Your task to perform on an android device: turn on javascript in the chrome app Image 0: 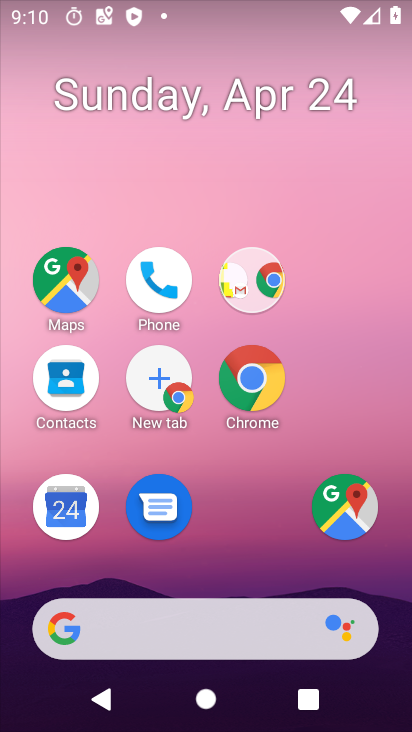
Step 0: drag from (226, 502) to (128, 45)
Your task to perform on an android device: turn on javascript in the chrome app Image 1: 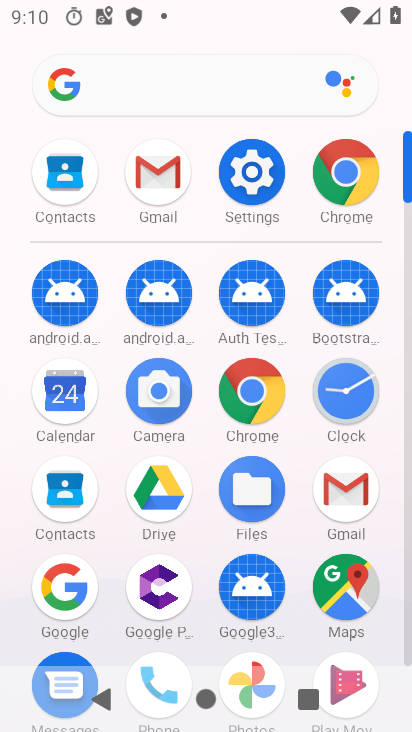
Step 1: click (339, 182)
Your task to perform on an android device: turn on javascript in the chrome app Image 2: 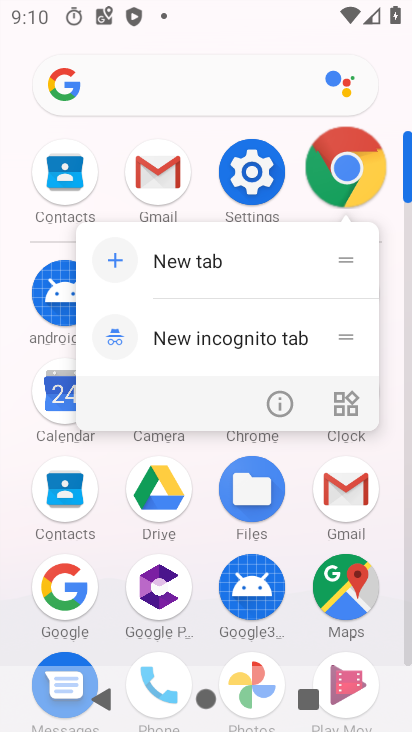
Step 2: click (339, 177)
Your task to perform on an android device: turn on javascript in the chrome app Image 3: 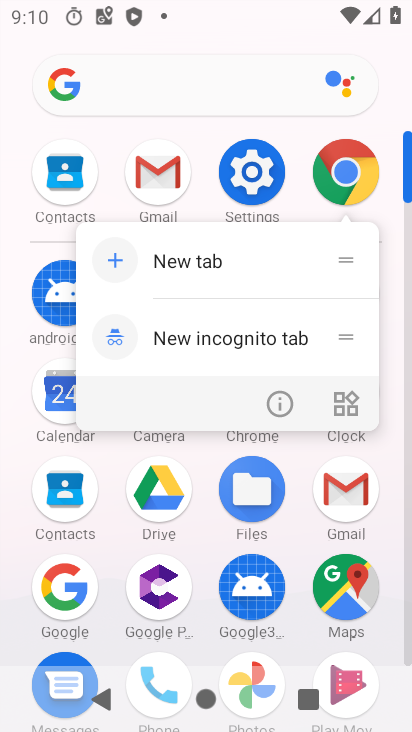
Step 3: click (344, 168)
Your task to perform on an android device: turn on javascript in the chrome app Image 4: 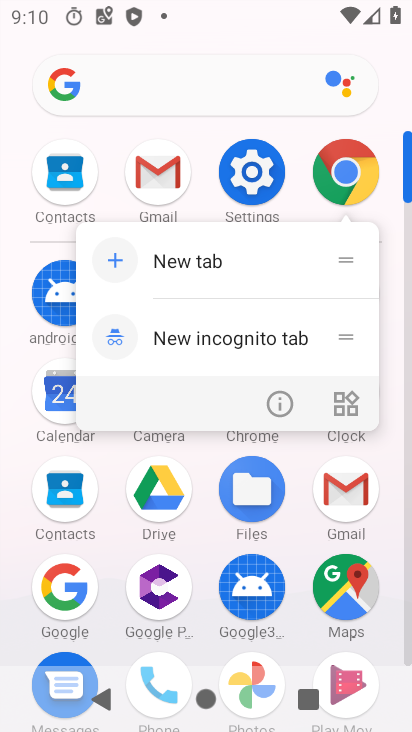
Step 4: click (189, 261)
Your task to perform on an android device: turn on javascript in the chrome app Image 5: 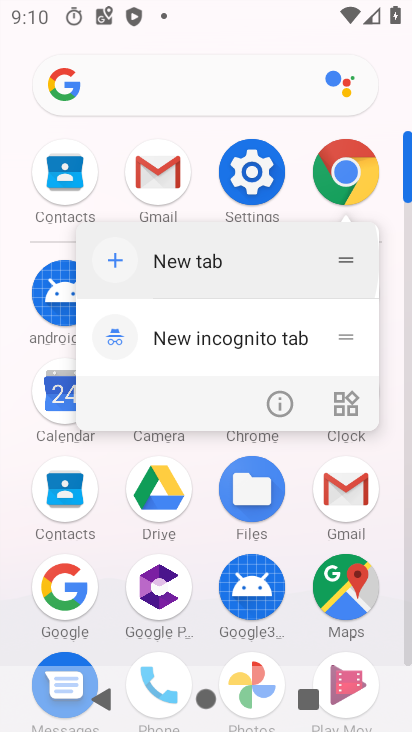
Step 5: click (189, 261)
Your task to perform on an android device: turn on javascript in the chrome app Image 6: 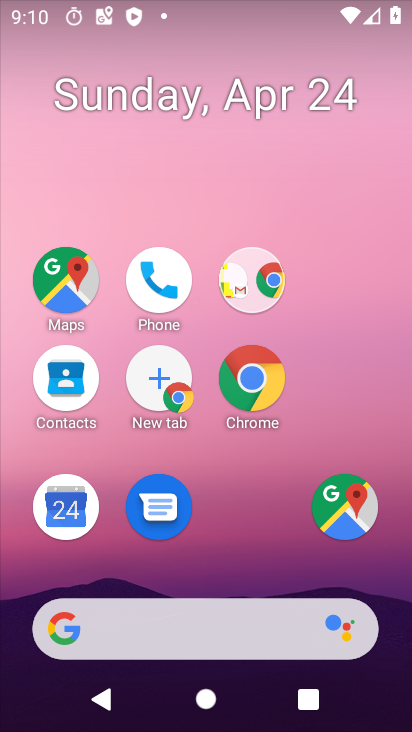
Step 6: click (188, 259)
Your task to perform on an android device: turn on javascript in the chrome app Image 7: 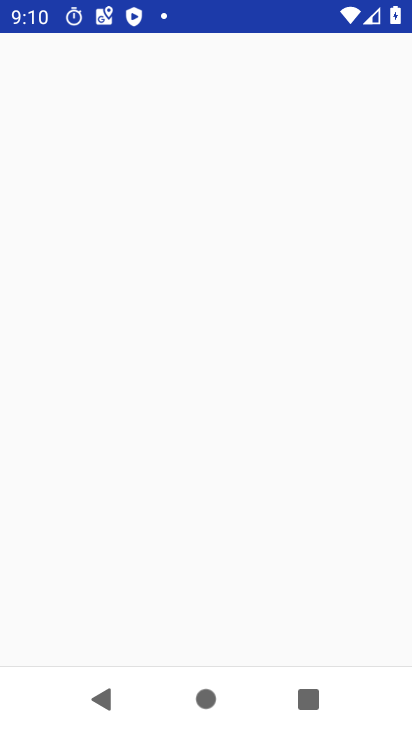
Step 7: drag from (221, 537) to (160, 111)
Your task to perform on an android device: turn on javascript in the chrome app Image 8: 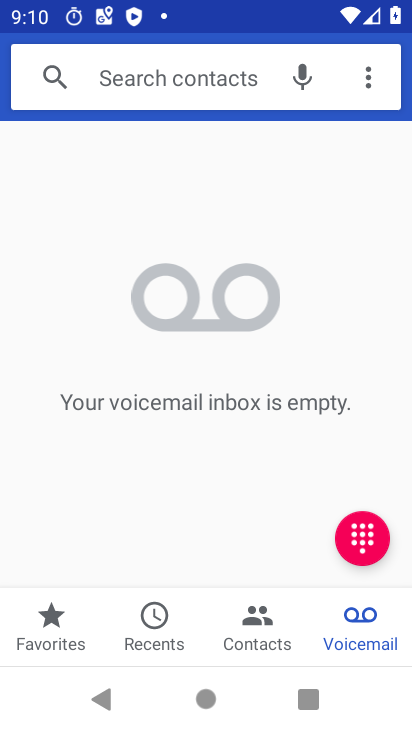
Step 8: drag from (368, 75) to (358, 361)
Your task to perform on an android device: turn on javascript in the chrome app Image 9: 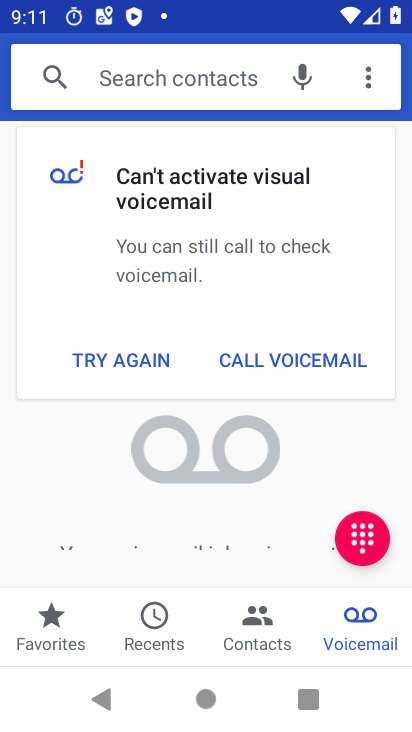
Step 9: press home button
Your task to perform on an android device: turn on javascript in the chrome app Image 10: 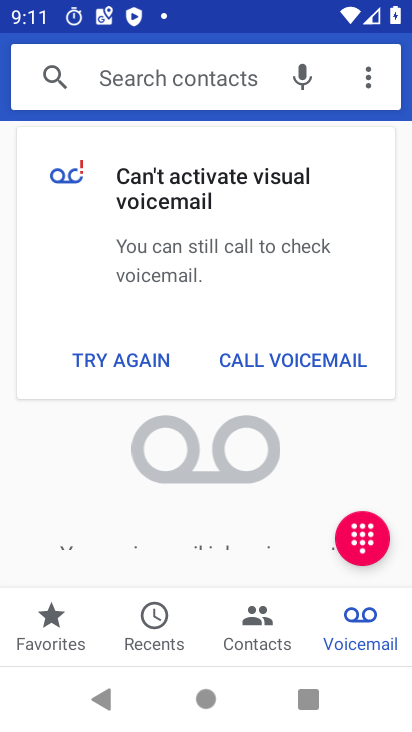
Step 10: press home button
Your task to perform on an android device: turn on javascript in the chrome app Image 11: 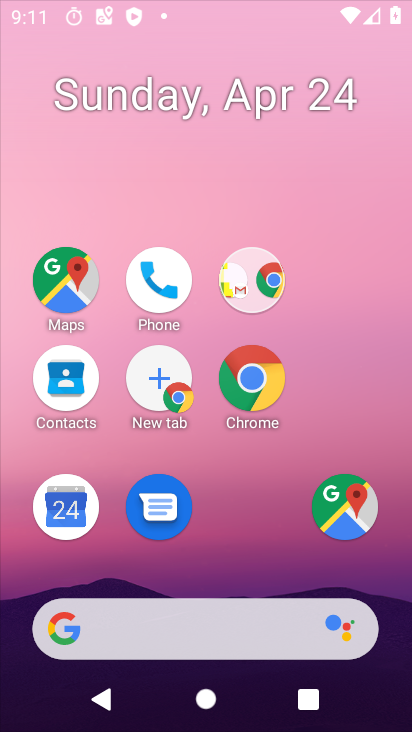
Step 11: press home button
Your task to perform on an android device: turn on javascript in the chrome app Image 12: 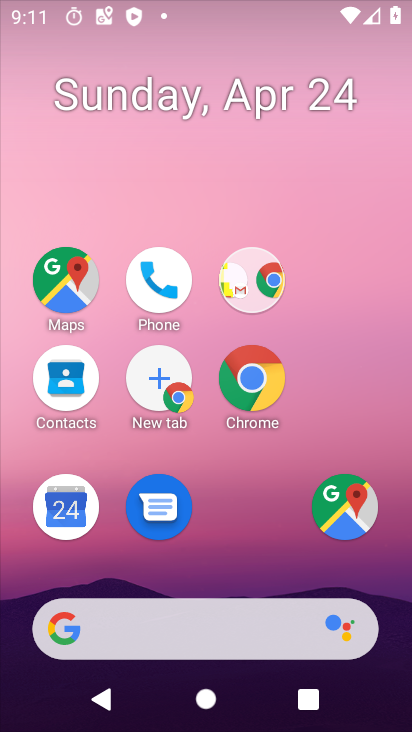
Step 12: press home button
Your task to perform on an android device: turn on javascript in the chrome app Image 13: 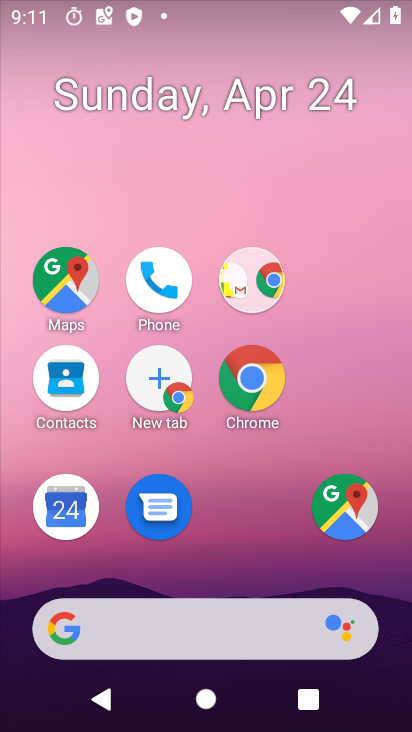
Step 13: drag from (264, 707) to (110, 64)
Your task to perform on an android device: turn on javascript in the chrome app Image 14: 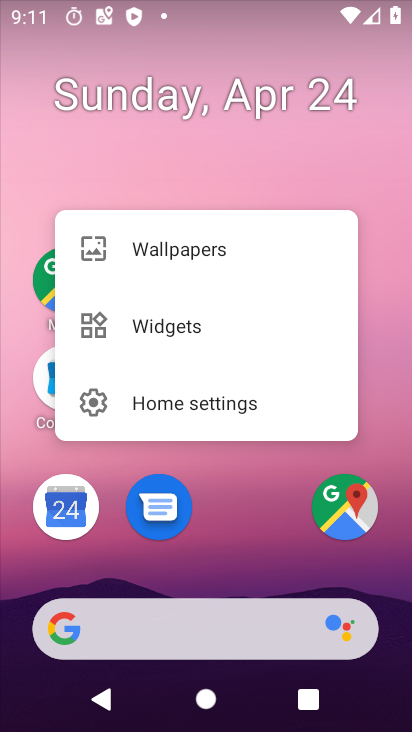
Step 14: click (53, 159)
Your task to perform on an android device: turn on javascript in the chrome app Image 15: 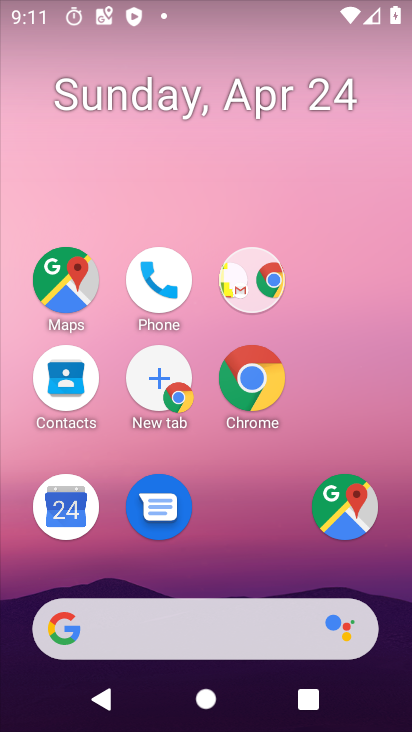
Step 15: drag from (259, 667) to (191, 112)
Your task to perform on an android device: turn on javascript in the chrome app Image 16: 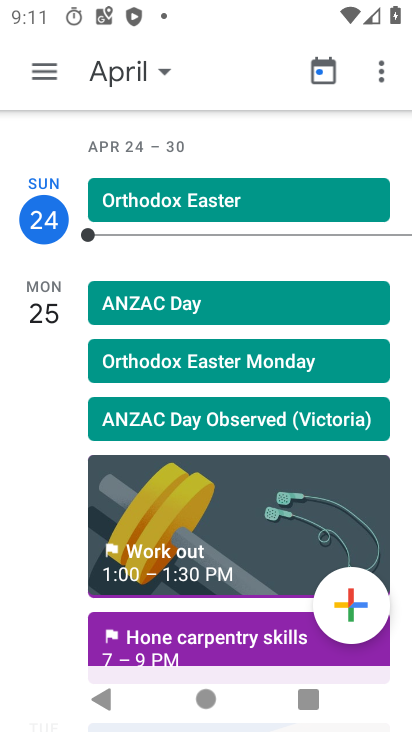
Step 16: press home button
Your task to perform on an android device: turn on javascript in the chrome app Image 17: 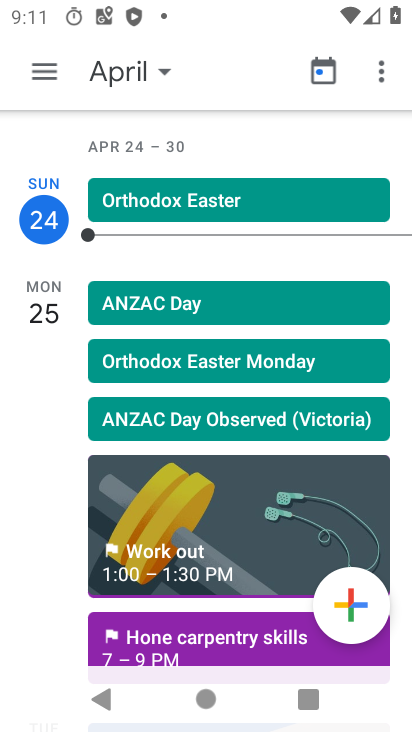
Step 17: press home button
Your task to perform on an android device: turn on javascript in the chrome app Image 18: 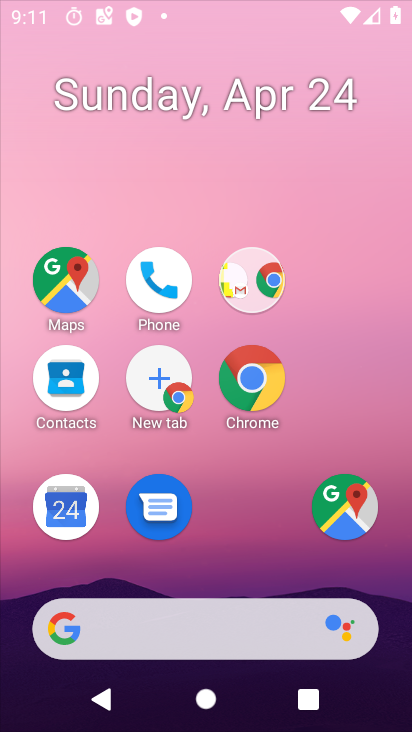
Step 18: press home button
Your task to perform on an android device: turn on javascript in the chrome app Image 19: 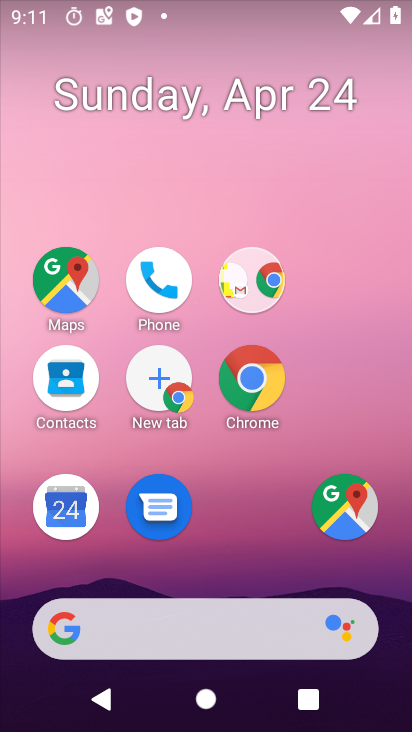
Step 19: press home button
Your task to perform on an android device: turn on javascript in the chrome app Image 20: 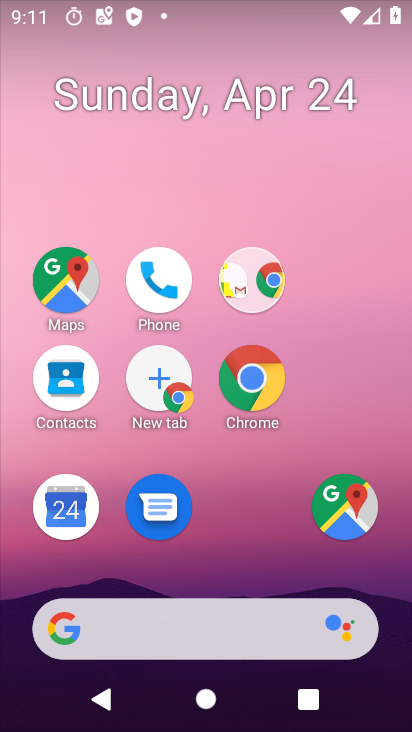
Step 20: drag from (200, 377) to (118, 19)
Your task to perform on an android device: turn on javascript in the chrome app Image 21: 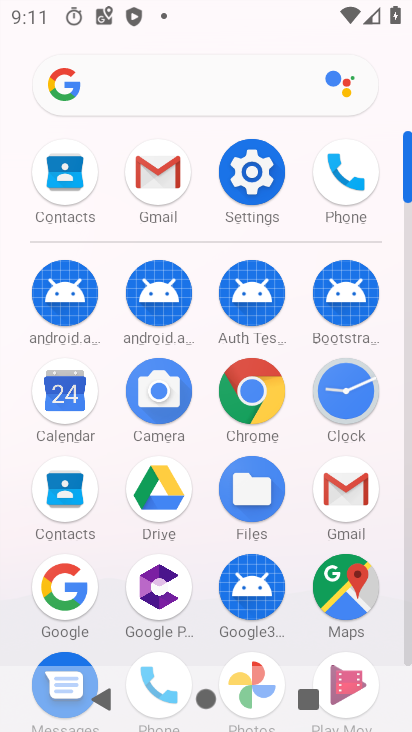
Step 21: click (251, 403)
Your task to perform on an android device: turn on javascript in the chrome app Image 22: 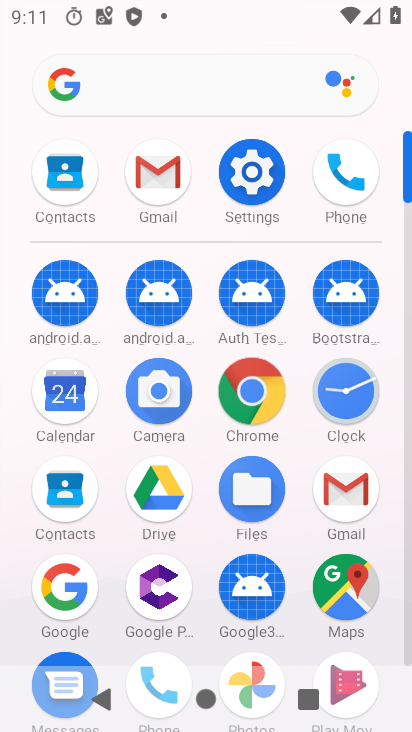
Step 22: click (252, 402)
Your task to perform on an android device: turn on javascript in the chrome app Image 23: 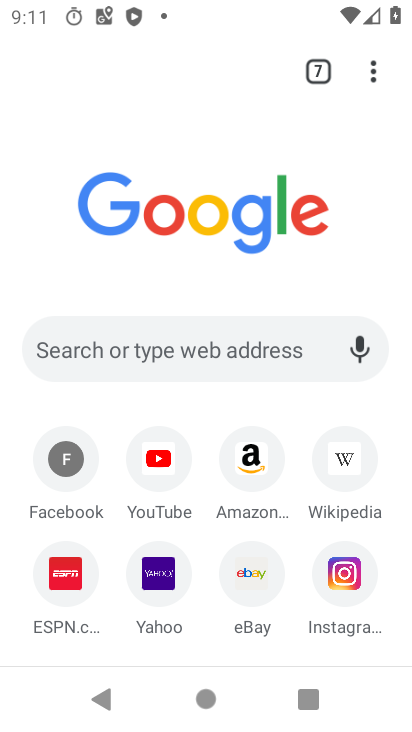
Step 23: drag from (373, 71) to (125, 500)
Your task to perform on an android device: turn on javascript in the chrome app Image 24: 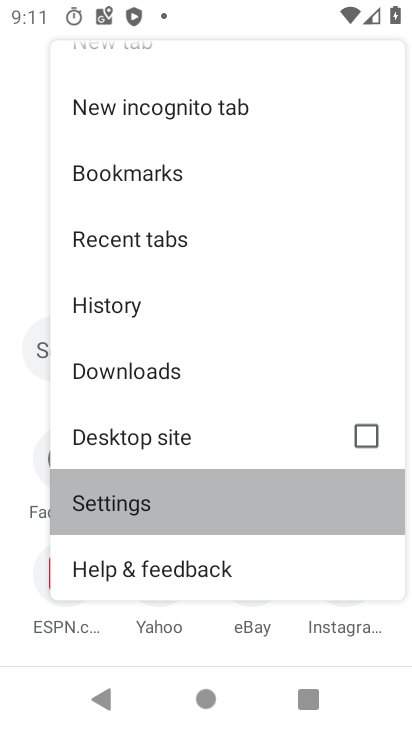
Step 24: click (122, 506)
Your task to perform on an android device: turn on javascript in the chrome app Image 25: 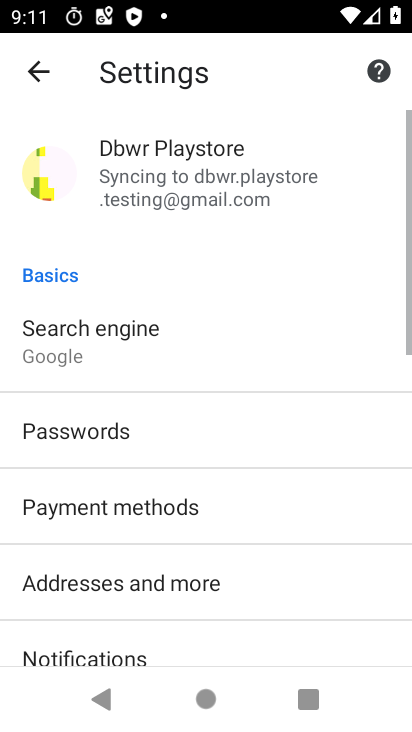
Step 25: drag from (167, 459) to (149, 97)
Your task to perform on an android device: turn on javascript in the chrome app Image 26: 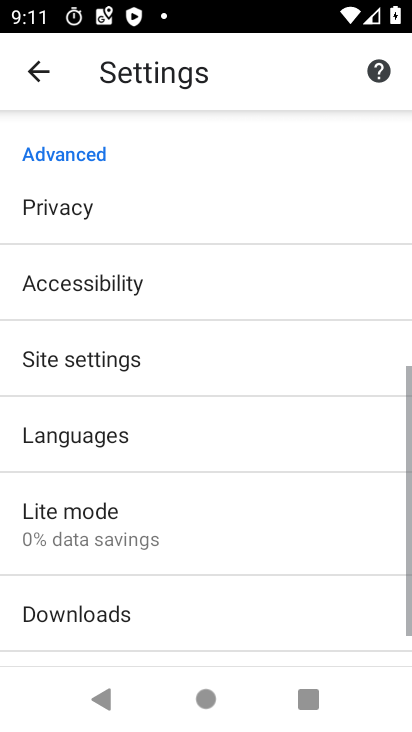
Step 26: drag from (148, 425) to (124, 37)
Your task to perform on an android device: turn on javascript in the chrome app Image 27: 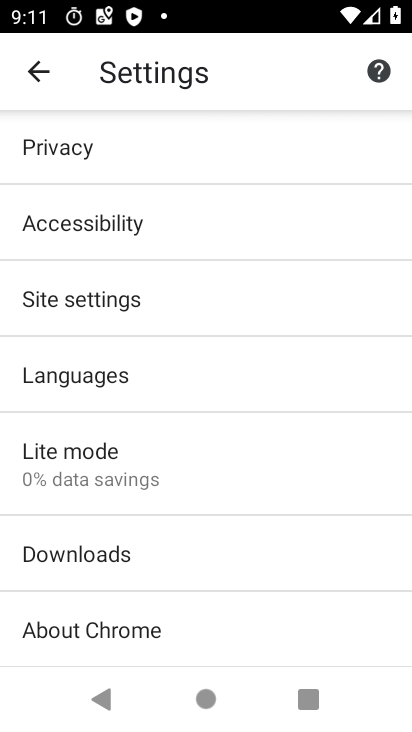
Step 27: click (75, 305)
Your task to perform on an android device: turn on javascript in the chrome app Image 28: 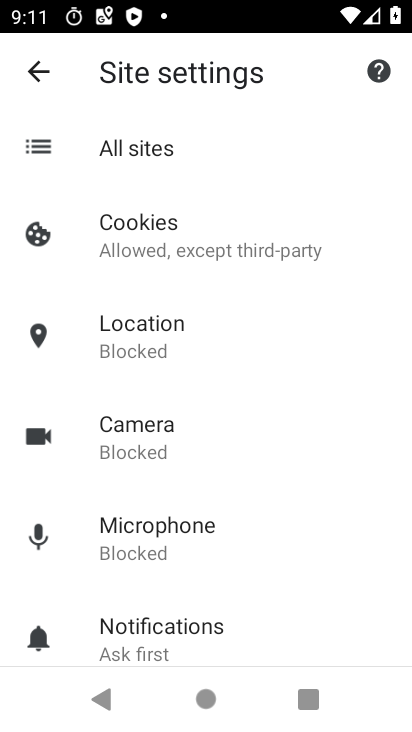
Step 28: drag from (105, 360) to (6, 44)
Your task to perform on an android device: turn on javascript in the chrome app Image 29: 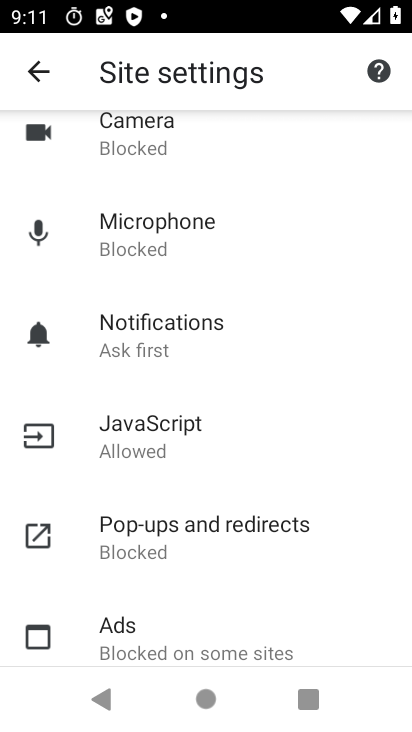
Step 29: click (153, 430)
Your task to perform on an android device: turn on javascript in the chrome app Image 30: 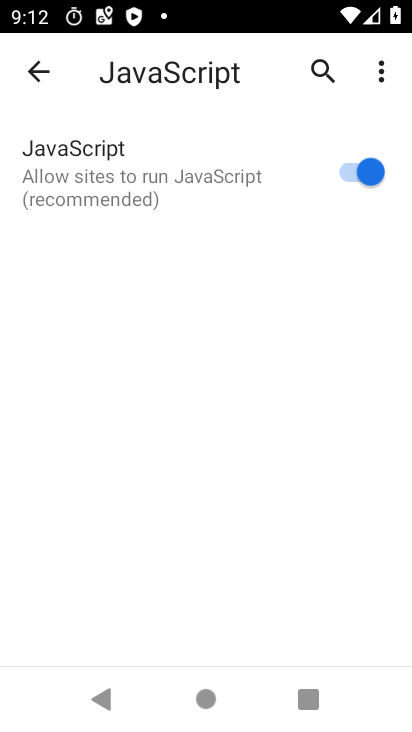
Step 30: task complete